Your task to perform on an android device: open chrome and create a bookmark for the current page Image 0: 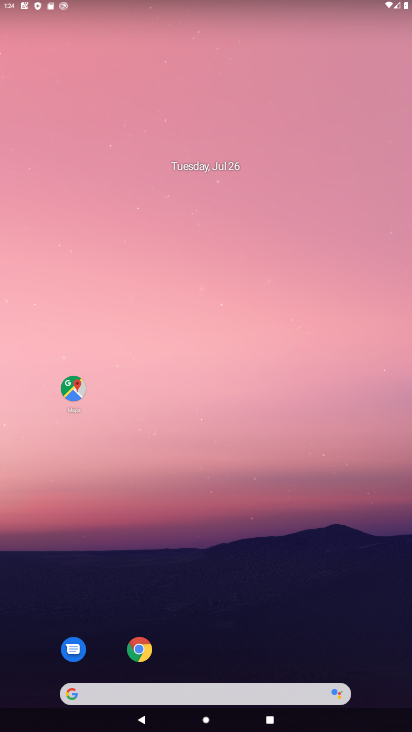
Step 0: press home button
Your task to perform on an android device: open chrome and create a bookmark for the current page Image 1: 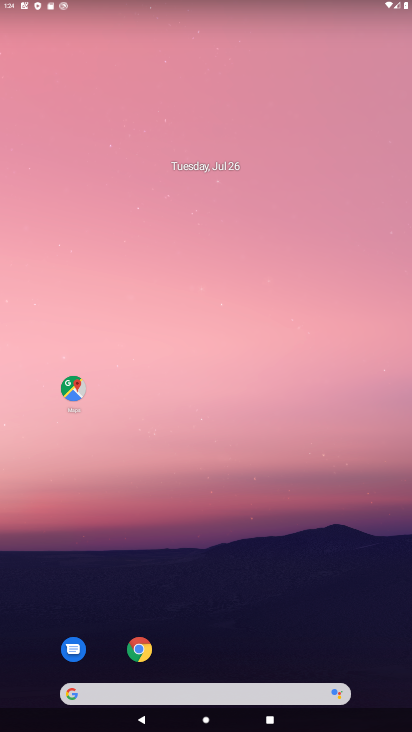
Step 1: click (137, 644)
Your task to perform on an android device: open chrome and create a bookmark for the current page Image 2: 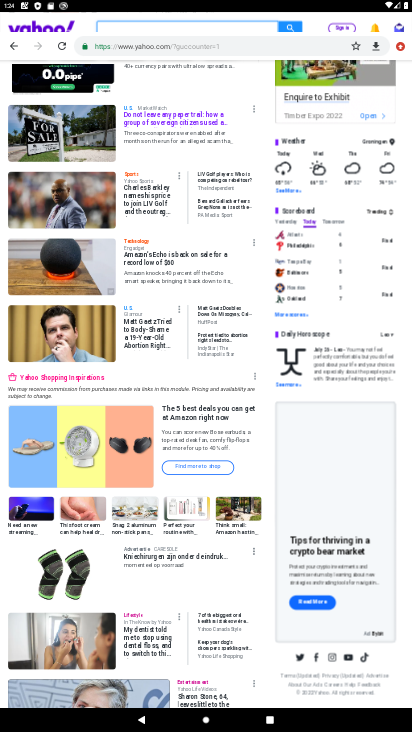
Step 2: drag from (278, 143) to (246, 540)
Your task to perform on an android device: open chrome and create a bookmark for the current page Image 3: 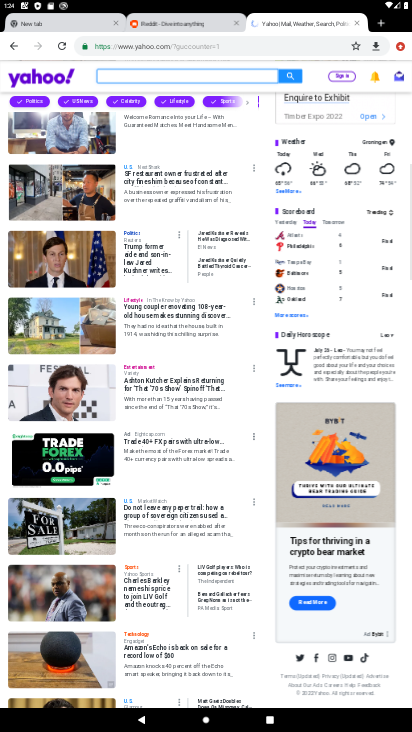
Step 3: click (357, 18)
Your task to perform on an android device: open chrome and create a bookmark for the current page Image 4: 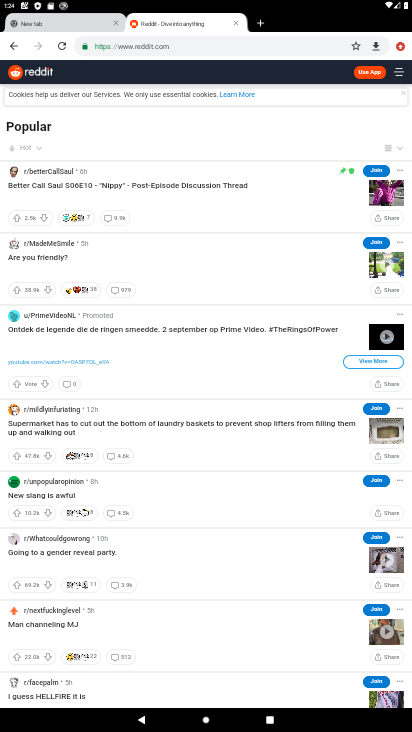
Step 4: click (404, 45)
Your task to perform on an android device: open chrome and create a bookmark for the current page Image 5: 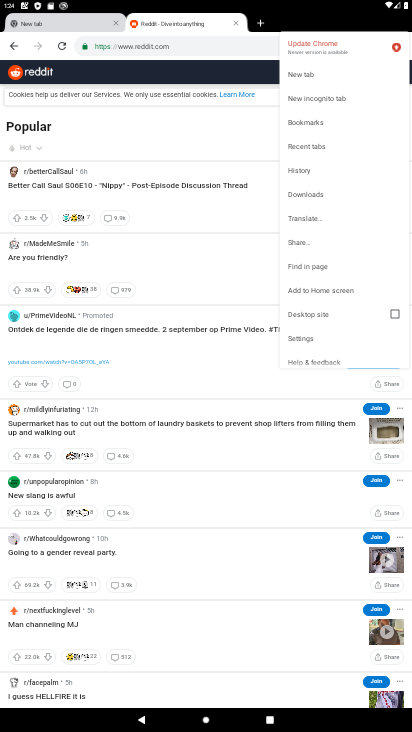
Step 5: click (203, 78)
Your task to perform on an android device: open chrome and create a bookmark for the current page Image 6: 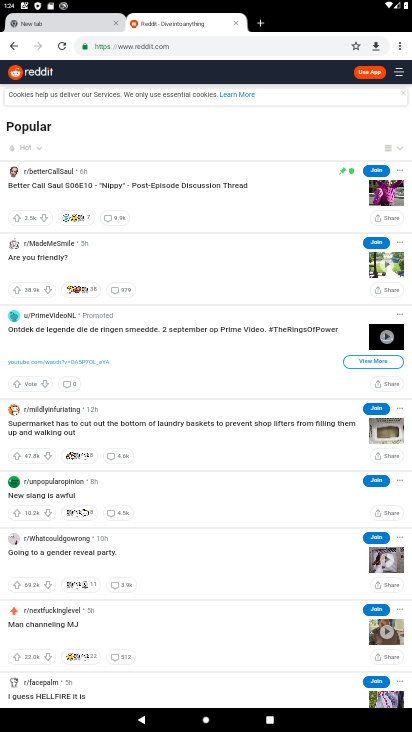
Step 6: click (348, 49)
Your task to perform on an android device: open chrome and create a bookmark for the current page Image 7: 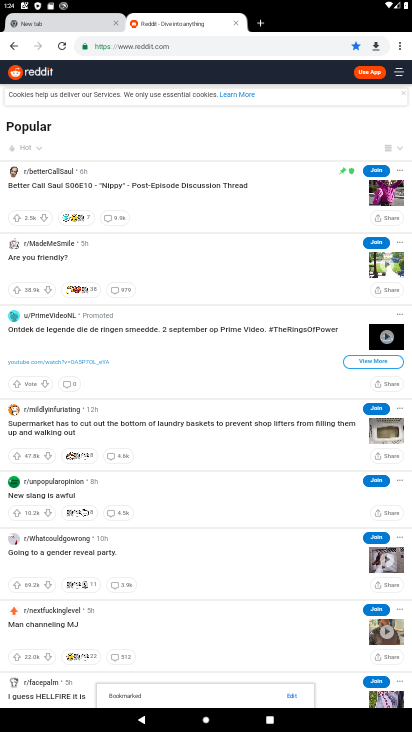
Step 7: task complete